Your task to perform on an android device: turn off priority inbox in the gmail app Image 0: 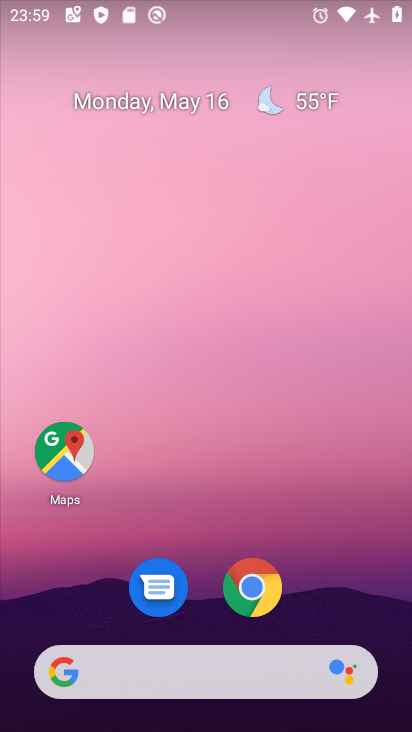
Step 0: drag from (324, 542) to (150, 5)
Your task to perform on an android device: turn off priority inbox in the gmail app Image 1: 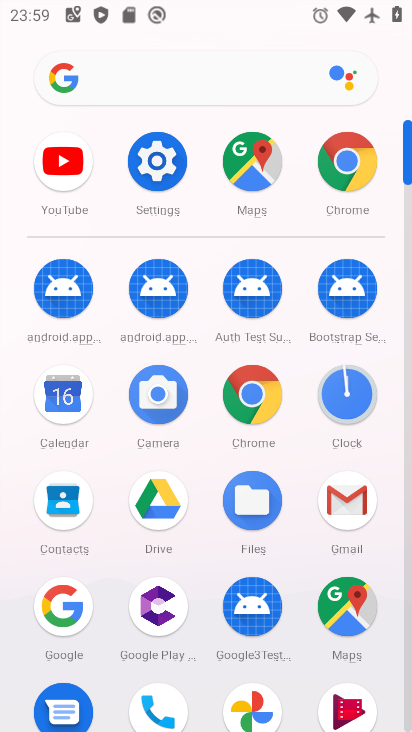
Step 1: drag from (25, 544) to (22, 215)
Your task to perform on an android device: turn off priority inbox in the gmail app Image 2: 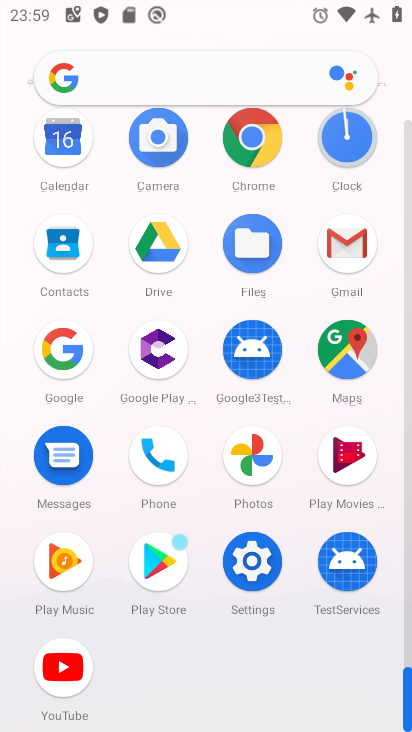
Step 2: click (340, 232)
Your task to perform on an android device: turn off priority inbox in the gmail app Image 3: 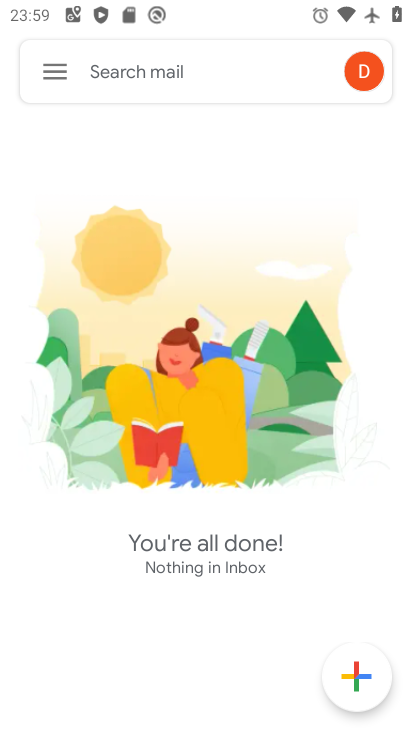
Step 3: click (60, 64)
Your task to perform on an android device: turn off priority inbox in the gmail app Image 4: 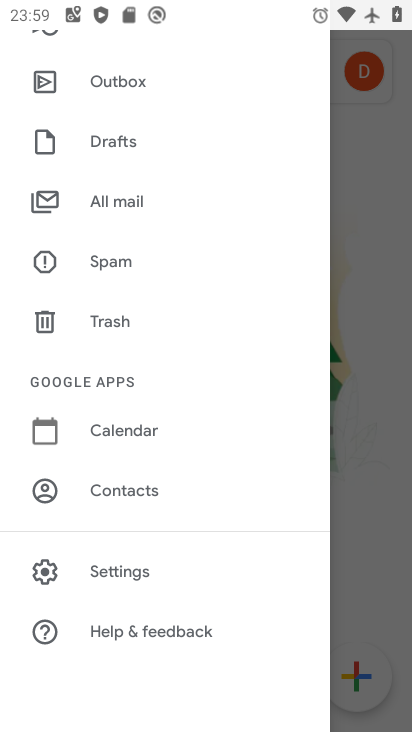
Step 4: click (123, 577)
Your task to perform on an android device: turn off priority inbox in the gmail app Image 5: 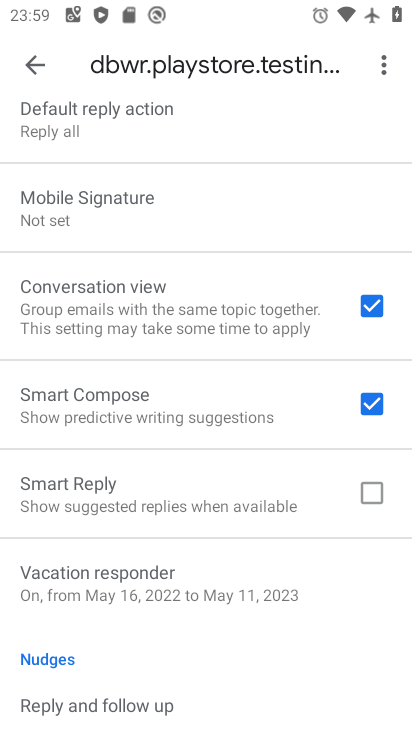
Step 5: drag from (135, 165) to (141, 610)
Your task to perform on an android device: turn off priority inbox in the gmail app Image 6: 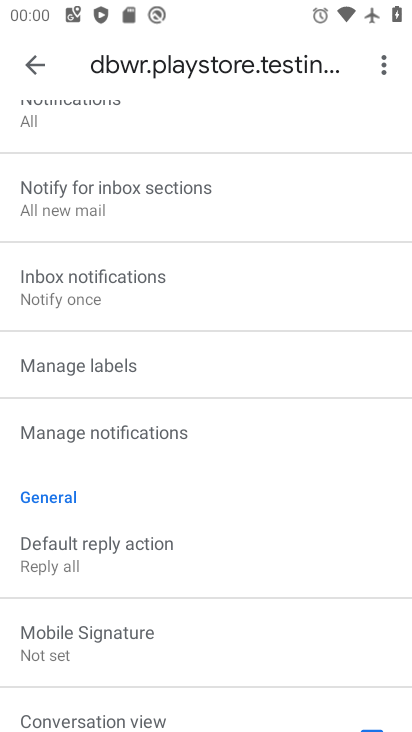
Step 6: drag from (162, 220) to (165, 640)
Your task to perform on an android device: turn off priority inbox in the gmail app Image 7: 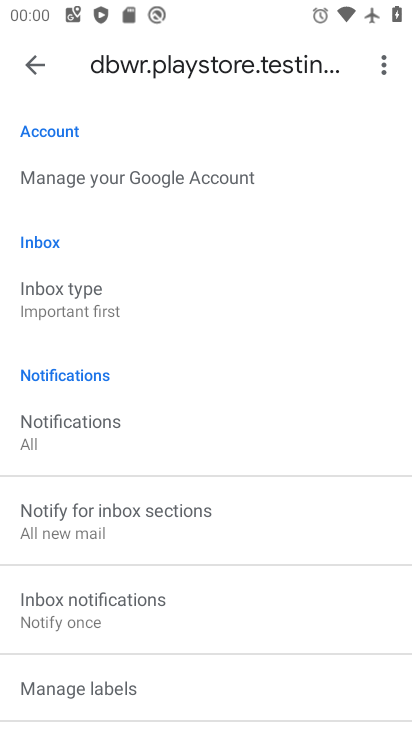
Step 7: click (92, 306)
Your task to perform on an android device: turn off priority inbox in the gmail app Image 8: 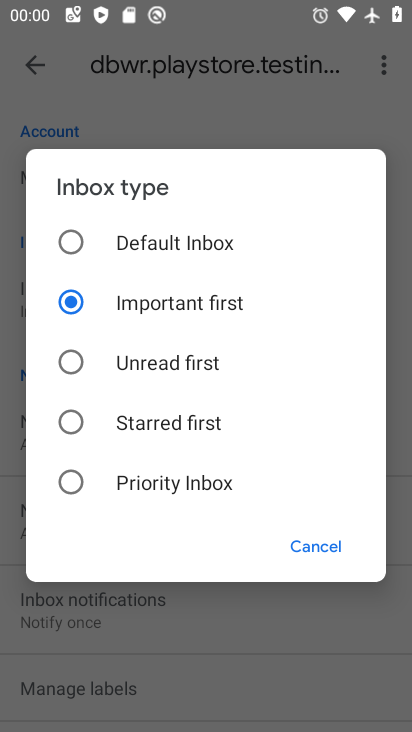
Step 8: click (166, 229)
Your task to perform on an android device: turn off priority inbox in the gmail app Image 9: 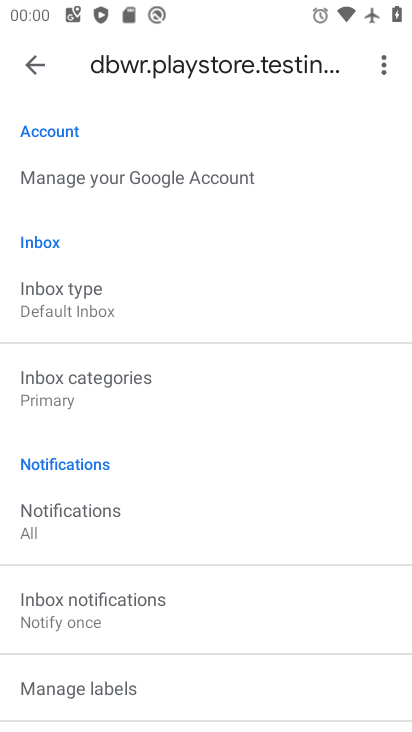
Step 9: task complete